Your task to perform on an android device: Go to sound settings Image 0: 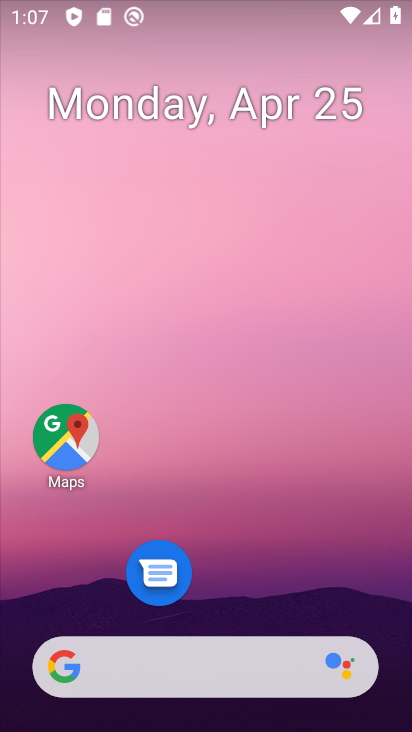
Step 0: drag from (236, 559) to (280, 234)
Your task to perform on an android device: Go to sound settings Image 1: 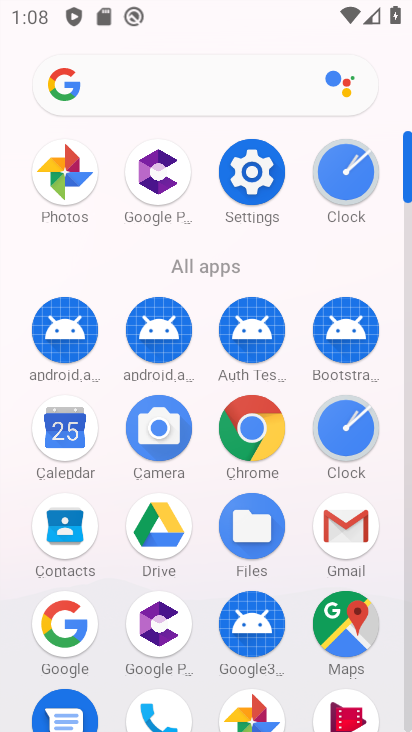
Step 1: click (253, 187)
Your task to perform on an android device: Go to sound settings Image 2: 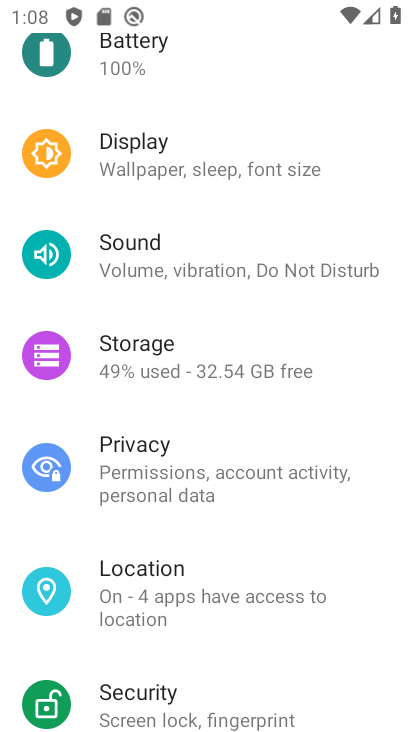
Step 2: click (193, 271)
Your task to perform on an android device: Go to sound settings Image 3: 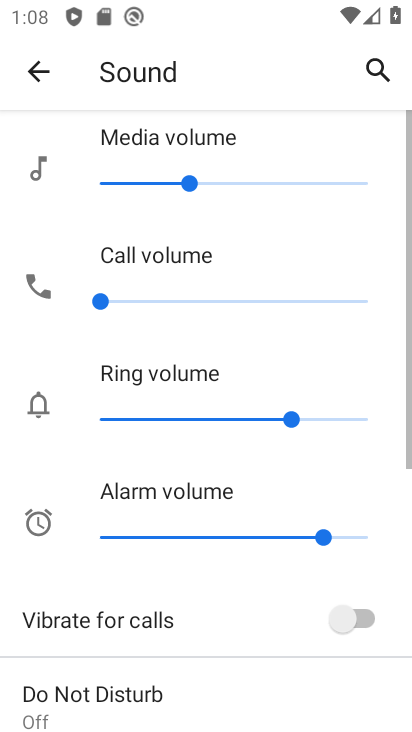
Step 3: task complete